Your task to perform on an android device: Check the news Image 0: 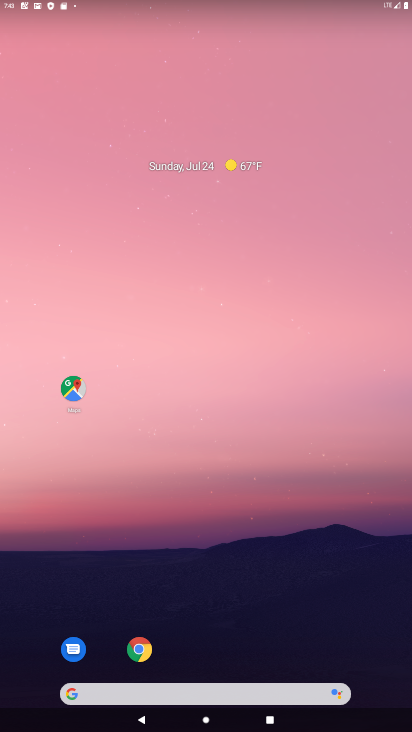
Step 0: click (205, 688)
Your task to perform on an android device: Check the news Image 1: 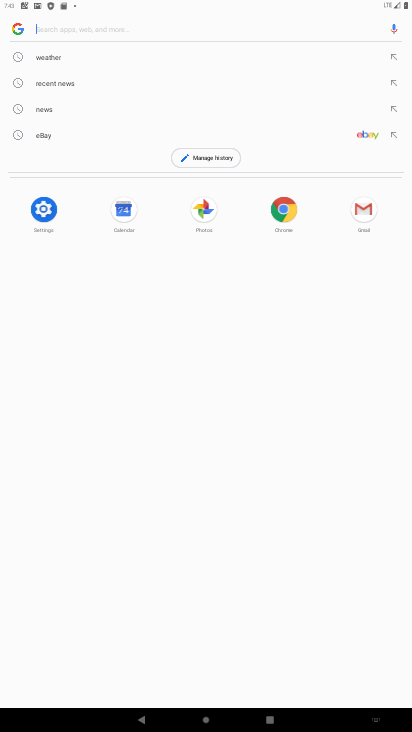
Step 1: click (52, 81)
Your task to perform on an android device: Check the news Image 2: 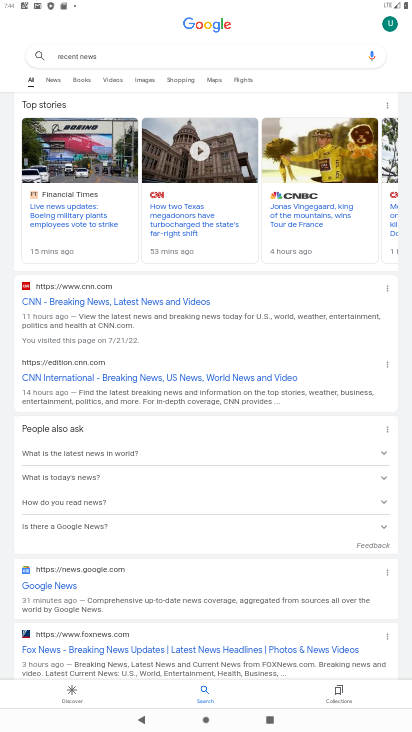
Step 2: task complete